Your task to perform on an android device: manage bookmarks in the chrome app Image 0: 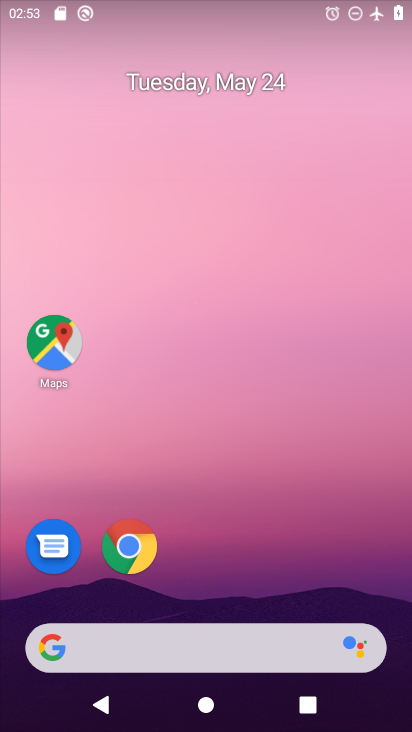
Step 0: drag from (295, 603) to (298, 24)
Your task to perform on an android device: manage bookmarks in the chrome app Image 1: 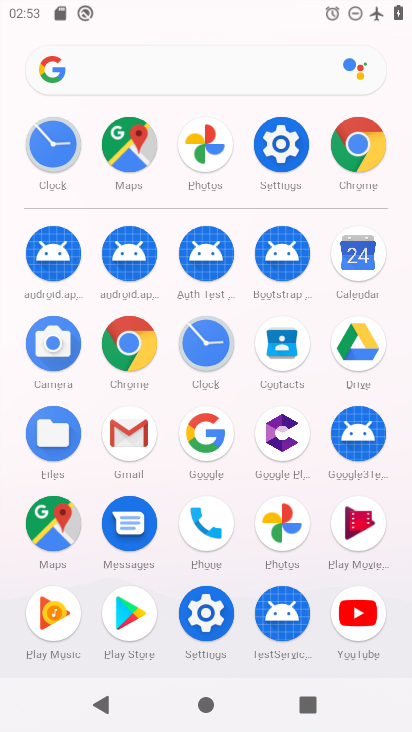
Step 1: click (137, 356)
Your task to perform on an android device: manage bookmarks in the chrome app Image 2: 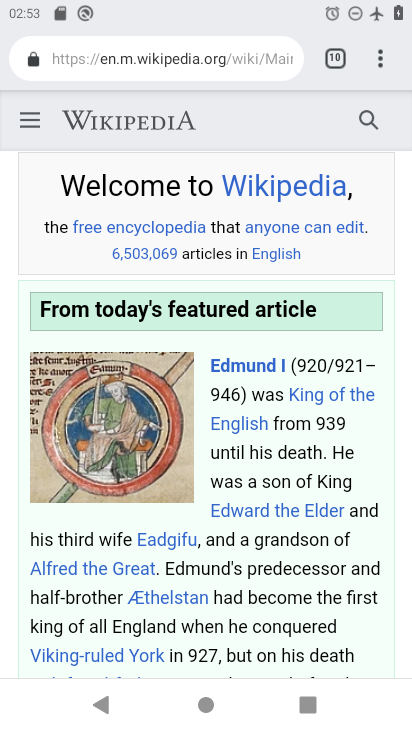
Step 2: drag from (374, 55) to (208, 225)
Your task to perform on an android device: manage bookmarks in the chrome app Image 3: 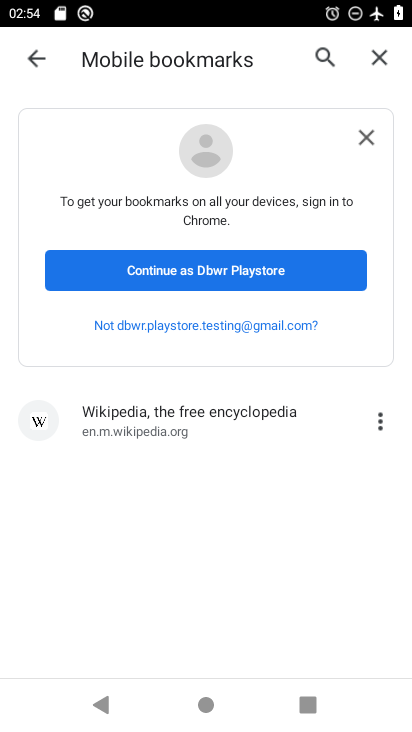
Step 3: click (380, 421)
Your task to perform on an android device: manage bookmarks in the chrome app Image 4: 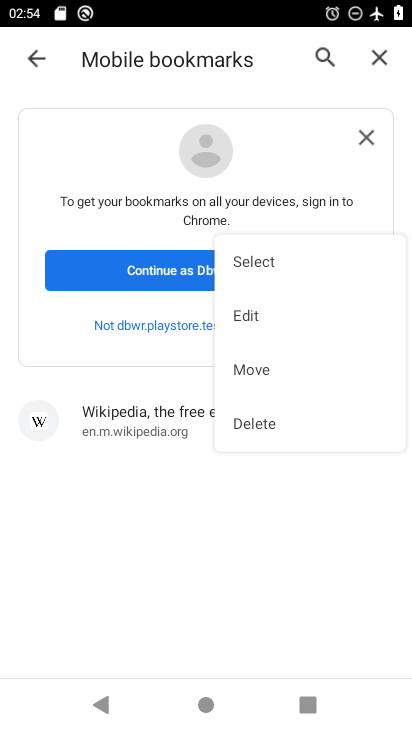
Step 4: click (205, 546)
Your task to perform on an android device: manage bookmarks in the chrome app Image 5: 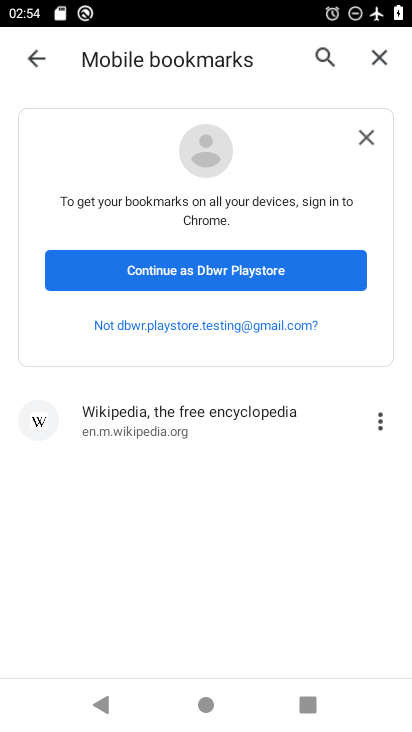
Step 5: task complete